Your task to perform on an android device: Open Chrome and go to the settings page Image 0: 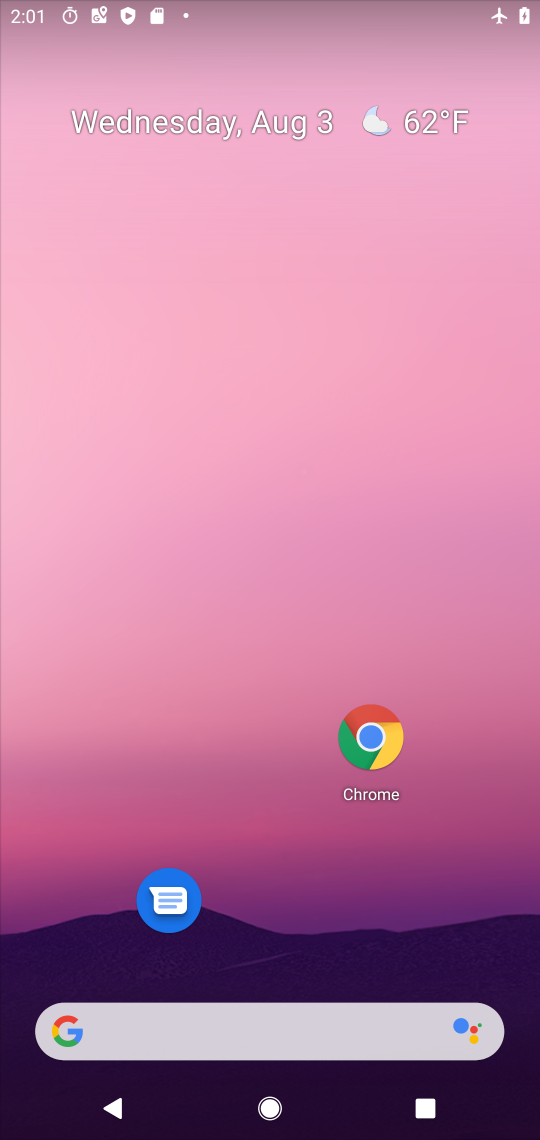
Step 0: drag from (287, 898) to (257, 16)
Your task to perform on an android device: Open Chrome and go to the settings page Image 1: 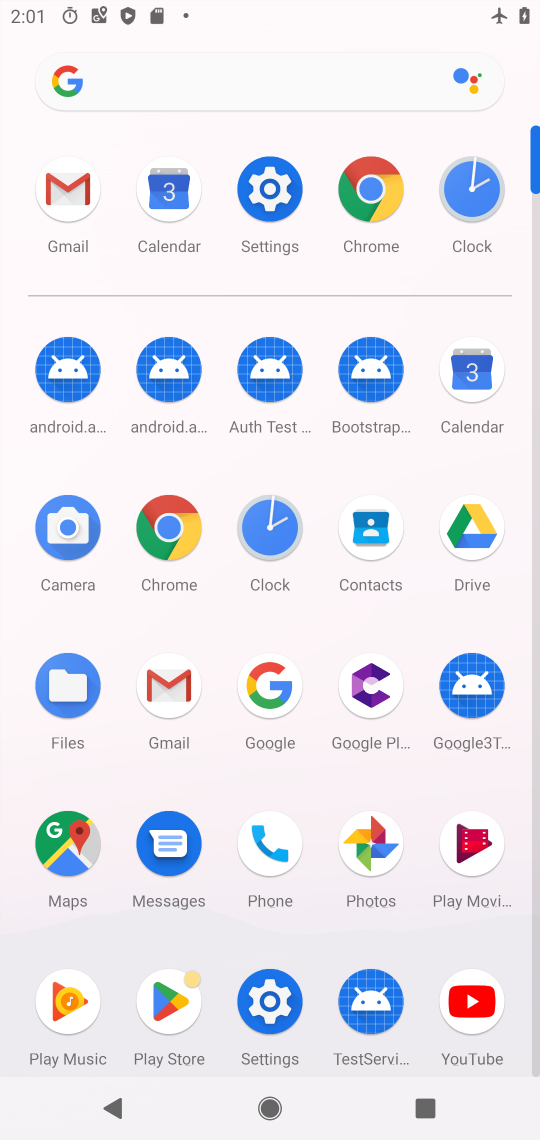
Step 1: click (169, 527)
Your task to perform on an android device: Open Chrome and go to the settings page Image 2: 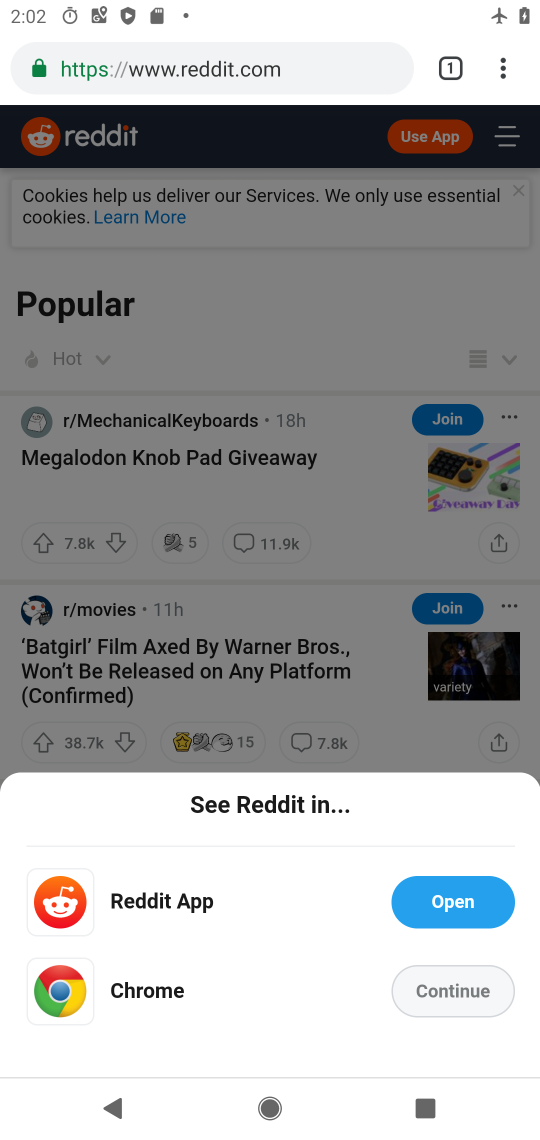
Step 2: task complete